Your task to perform on an android device: turn on location history Image 0: 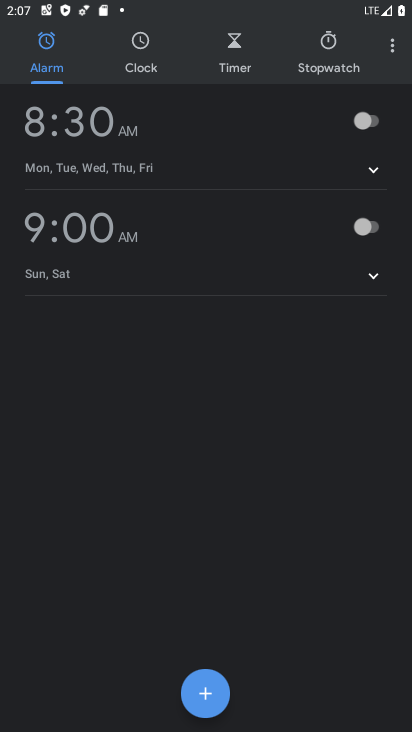
Step 0: press home button
Your task to perform on an android device: turn on location history Image 1: 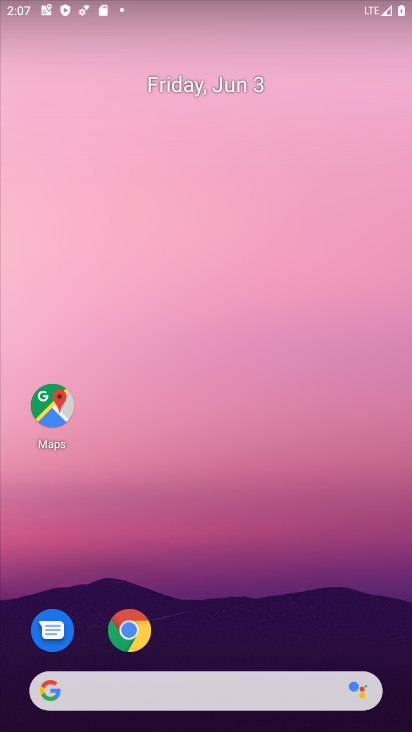
Step 1: drag from (216, 709) to (185, 25)
Your task to perform on an android device: turn on location history Image 2: 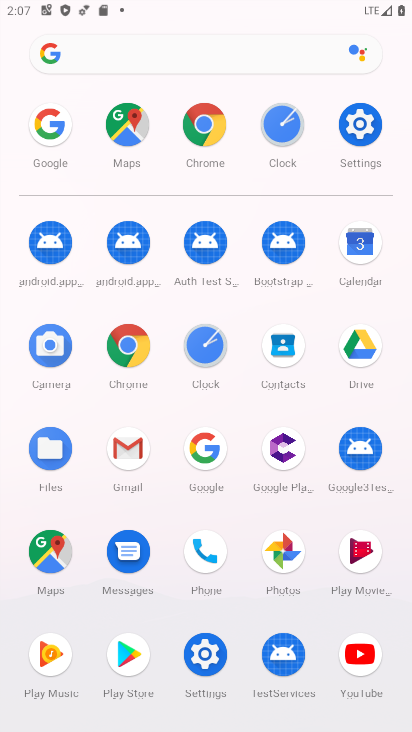
Step 2: click (361, 121)
Your task to perform on an android device: turn on location history Image 3: 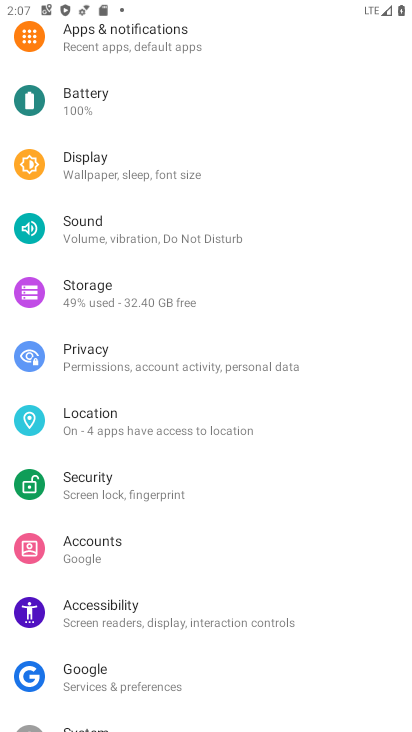
Step 3: click (99, 416)
Your task to perform on an android device: turn on location history Image 4: 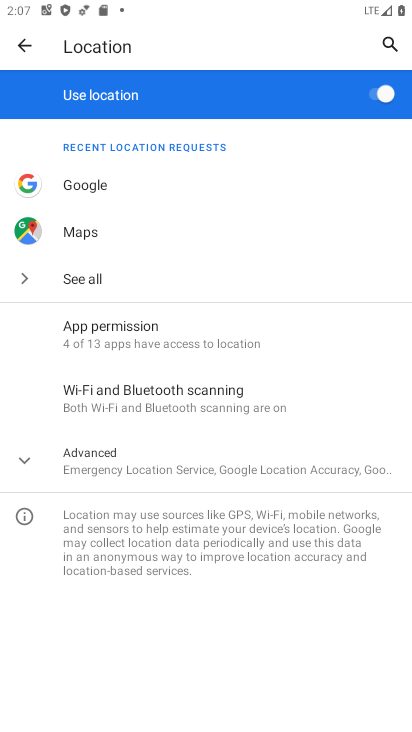
Step 4: click (117, 462)
Your task to perform on an android device: turn on location history Image 5: 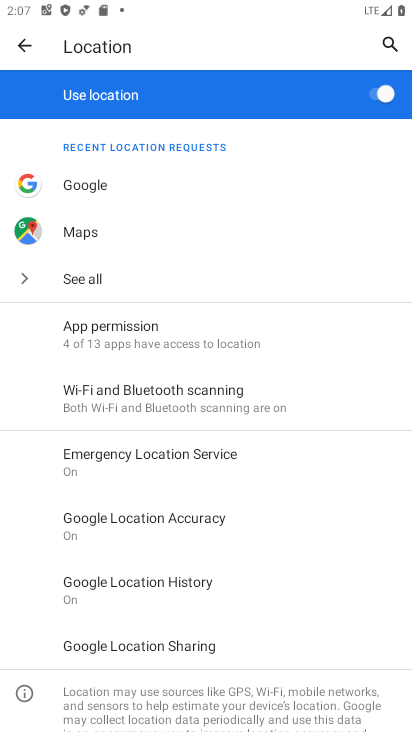
Step 5: click (136, 579)
Your task to perform on an android device: turn on location history Image 6: 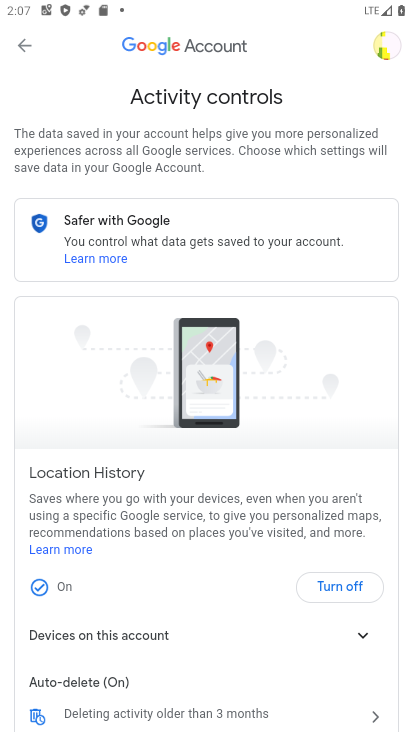
Step 6: task complete